Your task to perform on an android device: Open Youtube and go to "Your channel" Image 0: 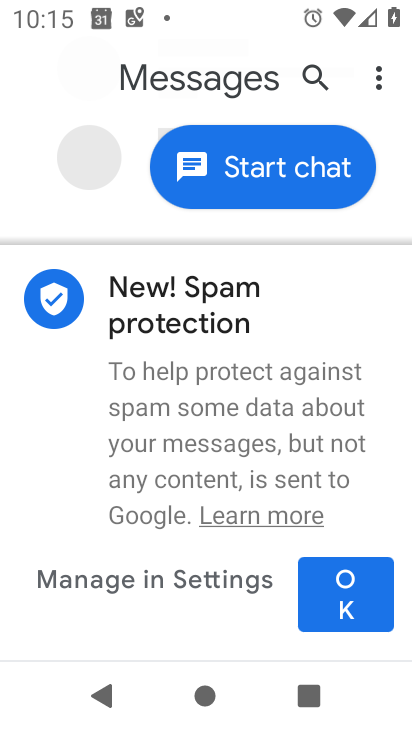
Step 0: press home button
Your task to perform on an android device: Open Youtube and go to "Your channel" Image 1: 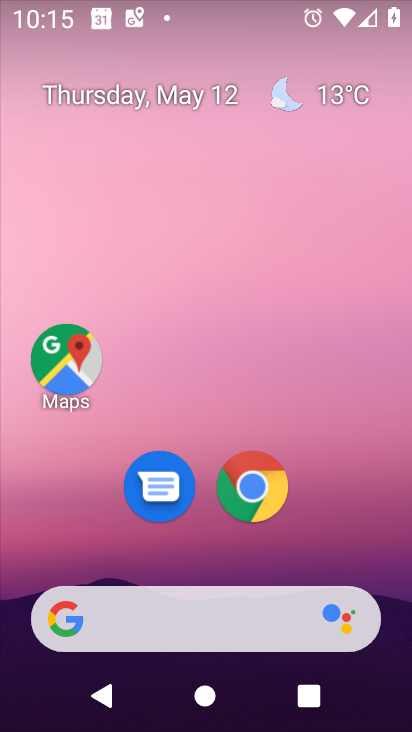
Step 1: drag from (369, 452) to (314, 148)
Your task to perform on an android device: Open Youtube and go to "Your channel" Image 2: 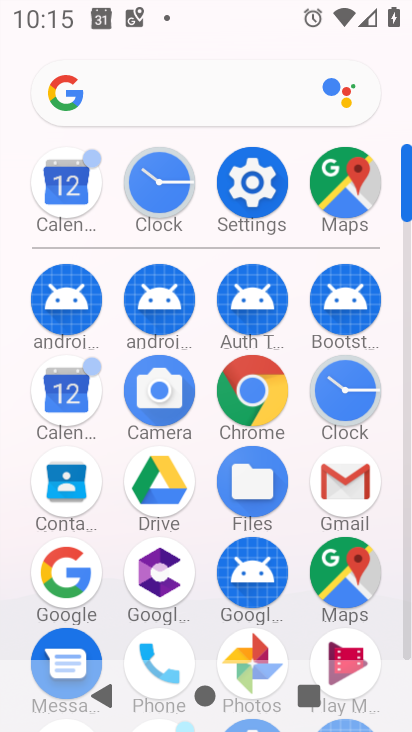
Step 2: drag from (201, 264) to (164, 7)
Your task to perform on an android device: Open Youtube and go to "Your channel" Image 3: 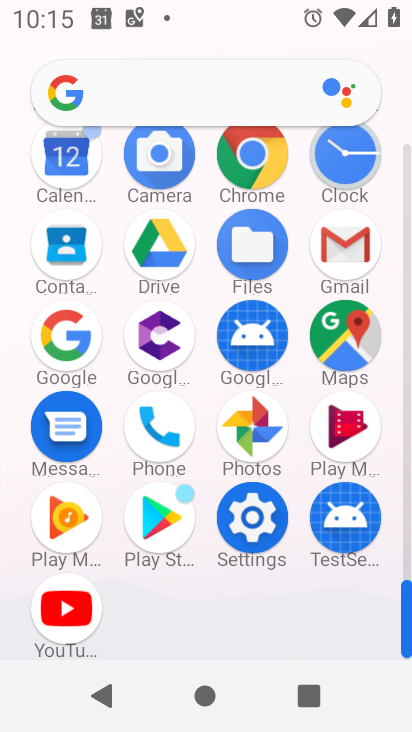
Step 3: click (86, 617)
Your task to perform on an android device: Open Youtube and go to "Your channel" Image 4: 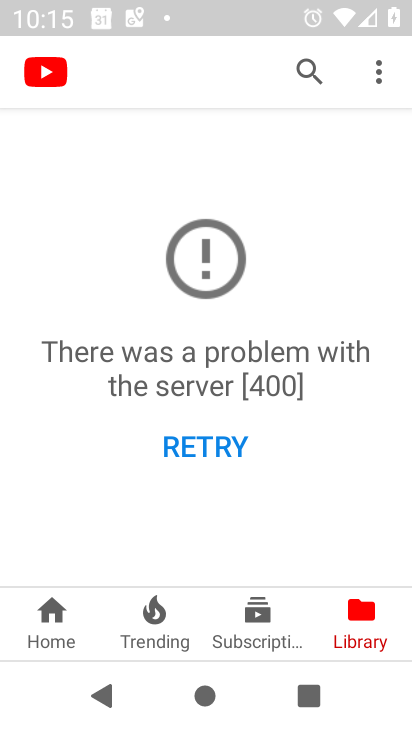
Step 4: click (386, 73)
Your task to perform on an android device: Open Youtube and go to "Your channel" Image 5: 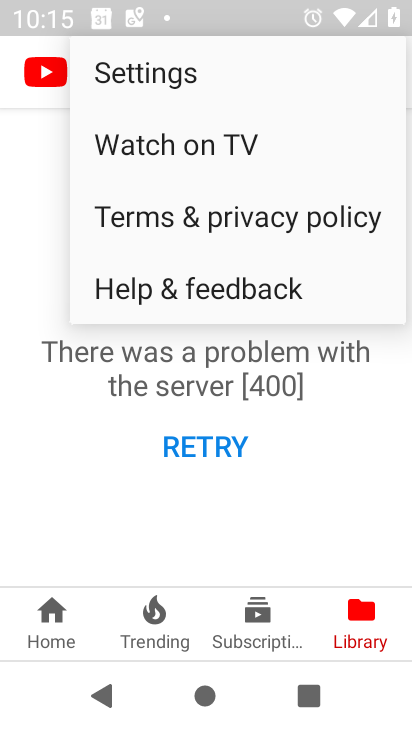
Step 5: click (343, 83)
Your task to perform on an android device: Open Youtube and go to "Your channel" Image 6: 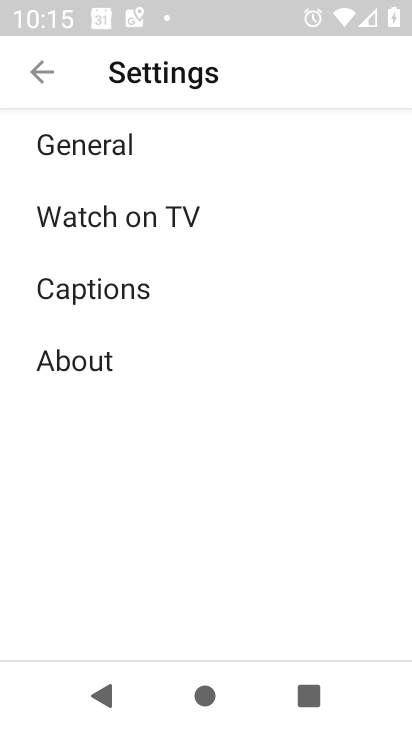
Step 6: click (247, 146)
Your task to perform on an android device: Open Youtube and go to "Your channel" Image 7: 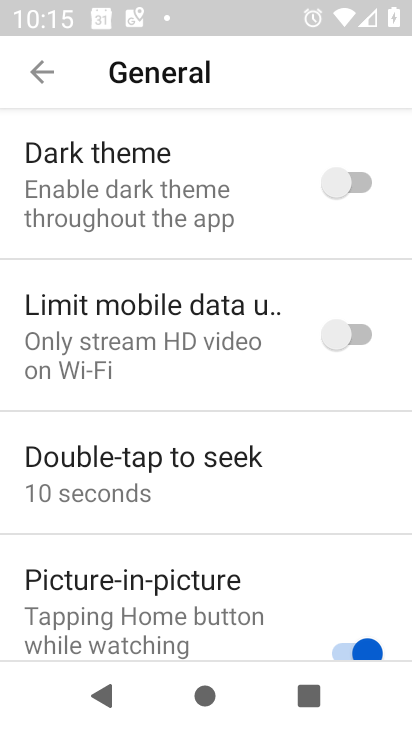
Step 7: task complete